Your task to perform on an android device: turn off sleep mode Image 0: 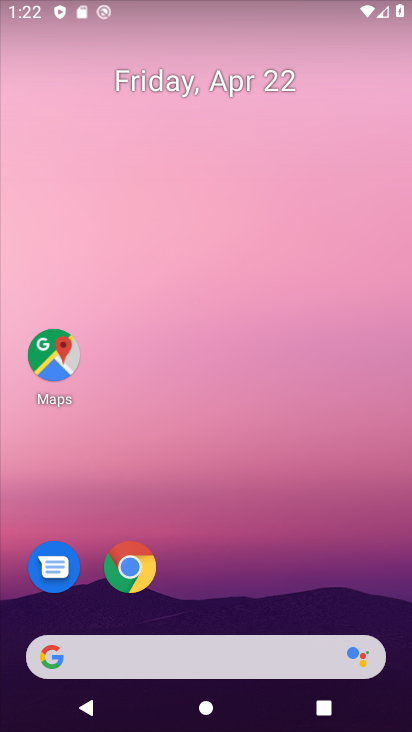
Step 0: drag from (200, 553) to (254, 125)
Your task to perform on an android device: turn off sleep mode Image 1: 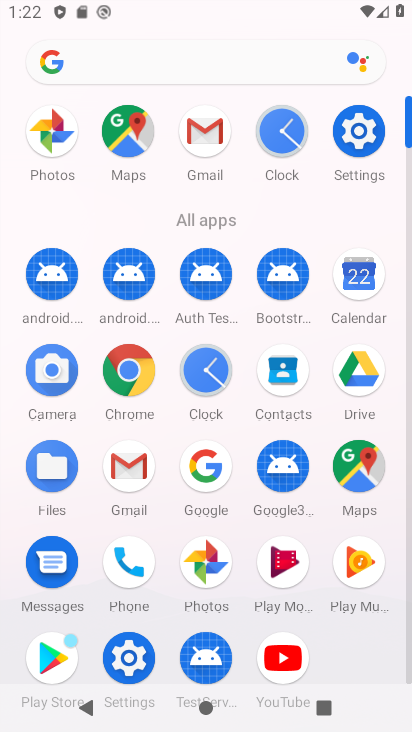
Step 1: click (374, 132)
Your task to perform on an android device: turn off sleep mode Image 2: 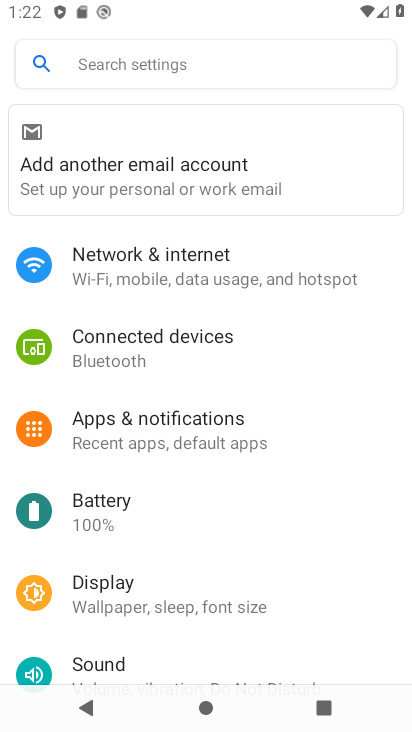
Step 2: click (186, 587)
Your task to perform on an android device: turn off sleep mode Image 3: 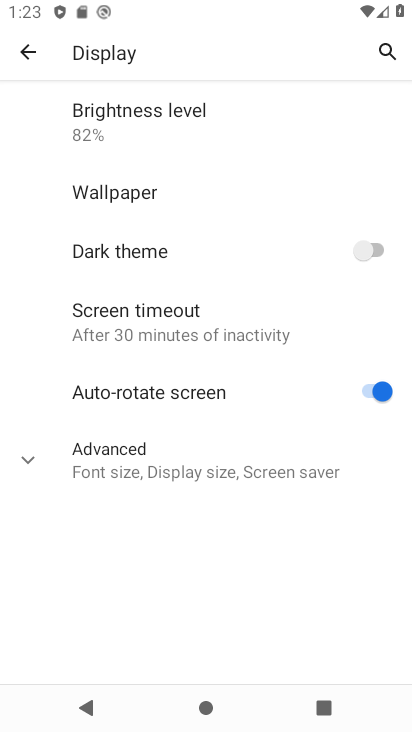
Step 3: click (236, 332)
Your task to perform on an android device: turn off sleep mode Image 4: 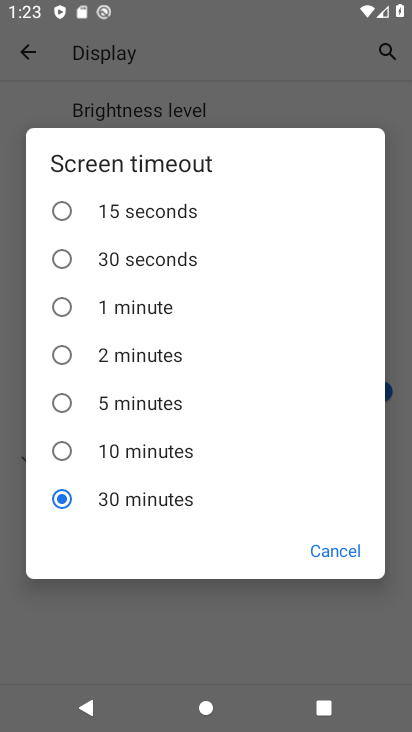
Step 4: task complete